Your task to perform on an android device: Go to eBay Image 0: 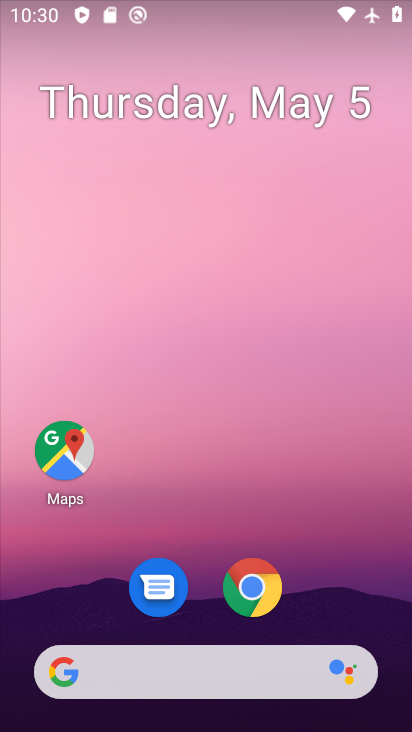
Step 0: drag from (353, 599) to (236, 2)
Your task to perform on an android device: Go to eBay Image 1: 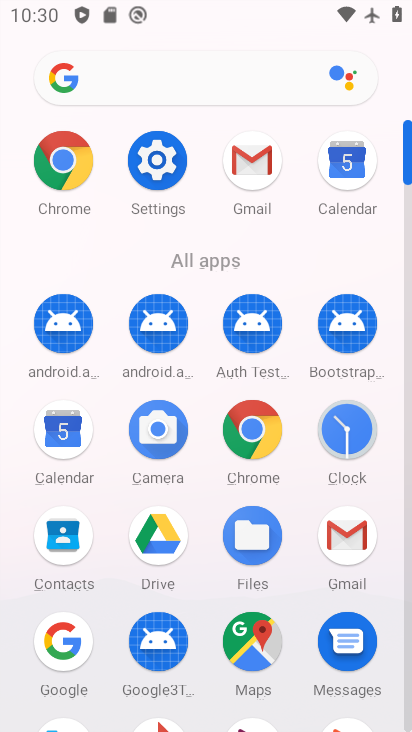
Step 1: click (64, 157)
Your task to perform on an android device: Go to eBay Image 2: 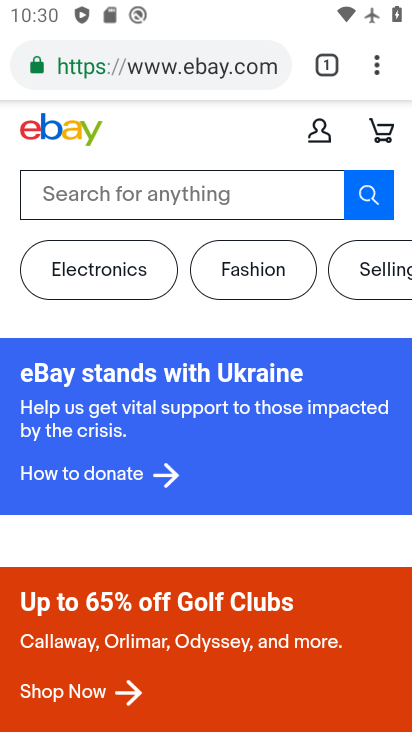
Step 2: task complete